Your task to perform on an android device: open wifi settings Image 0: 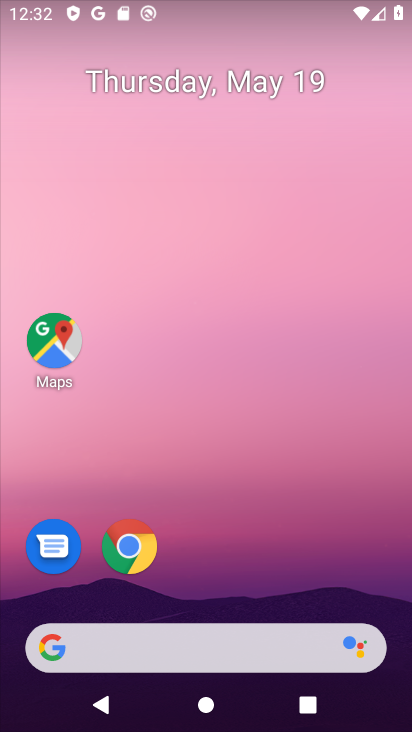
Step 0: drag from (278, 551) to (250, 71)
Your task to perform on an android device: open wifi settings Image 1: 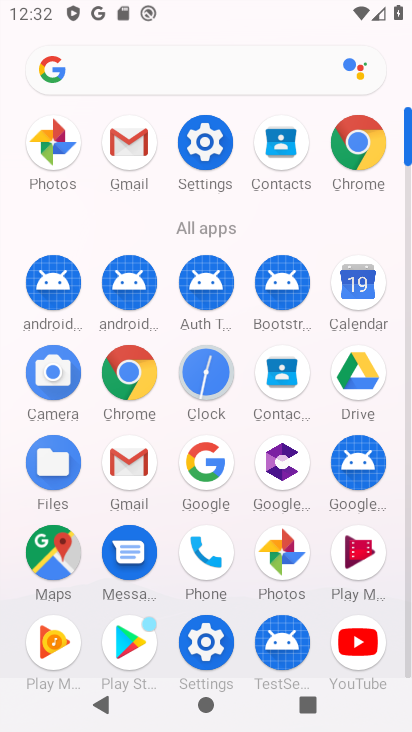
Step 1: click (204, 137)
Your task to perform on an android device: open wifi settings Image 2: 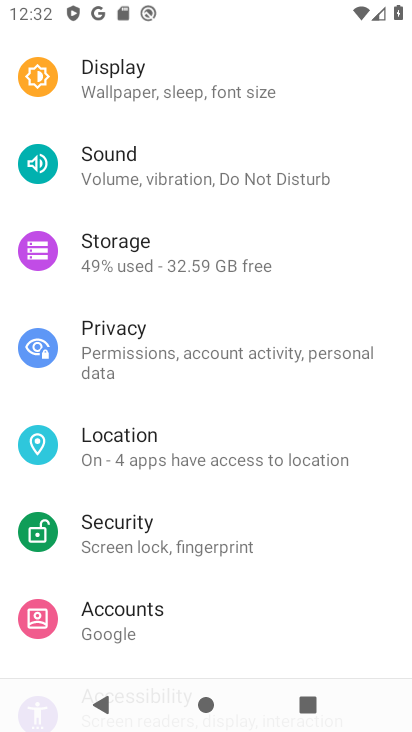
Step 2: drag from (161, 306) to (189, 557)
Your task to perform on an android device: open wifi settings Image 3: 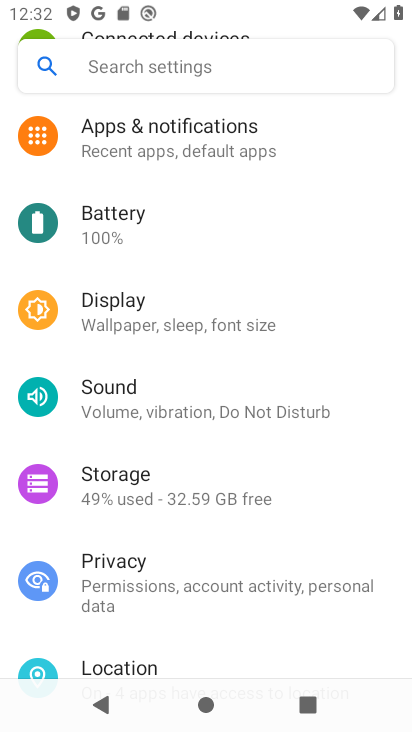
Step 3: drag from (155, 283) to (228, 538)
Your task to perform on an android device: open wifi settings Image 4: 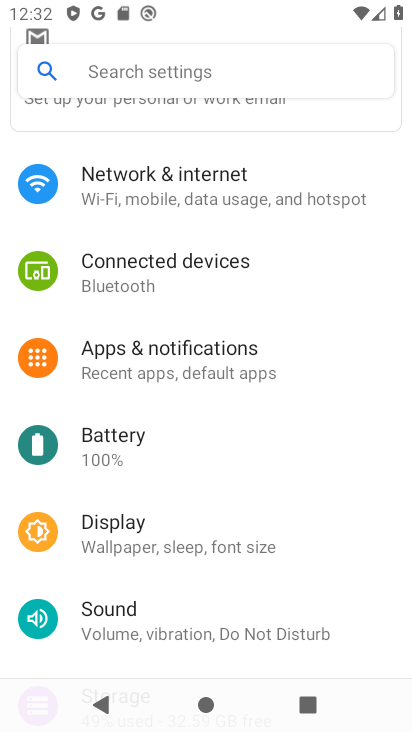
Step 4: drag from (154, 191) to (138, 476)
Your task to perform on an android device: open wifi settings Image 5: 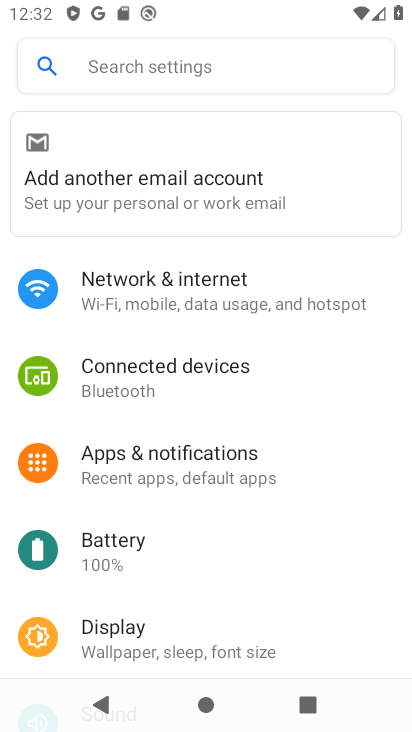
Step 5: click (172, 300)
Your task to perform on an android device: open wifi settings Image 6: 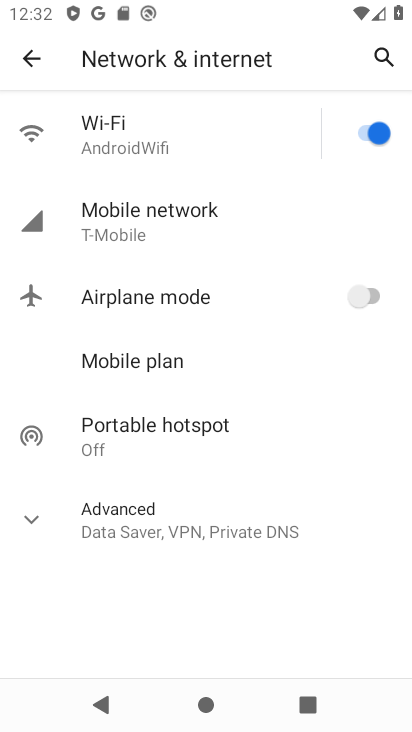
Step 6: click (102, 137)
Your task to perform on an android device: open wifi settings Image 7: 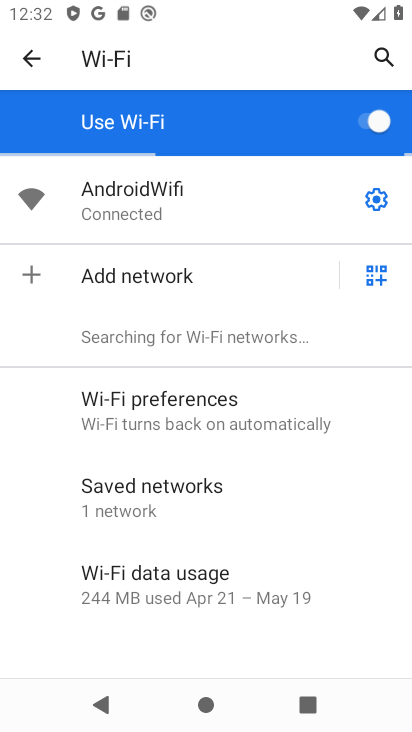
Step 7: task complete